Your task to perform on an android device: check out phone information Image 0: 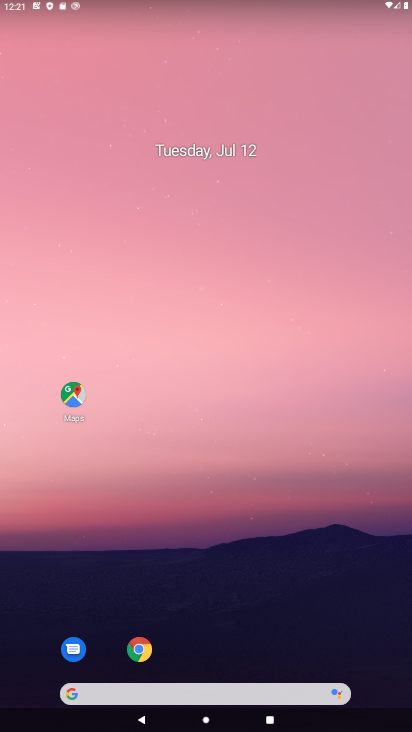
Step 0: drag from (366, 688) to (205, 68)
Your task to perform on an android device: check out phone information Image 1: 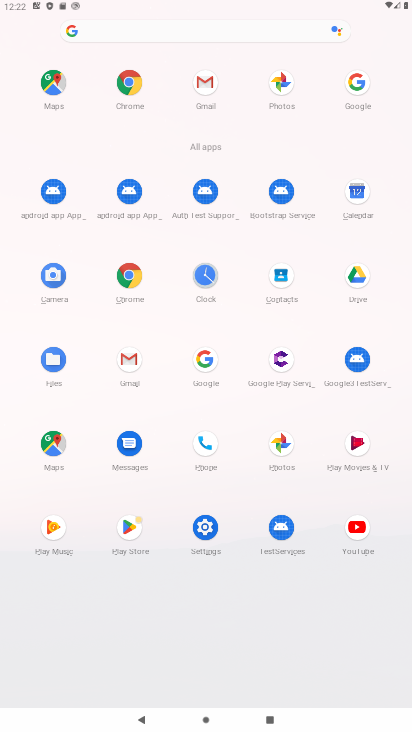
Step 1: click (204, 524)
Your task to perform on an android device: check out phone information Image 2: 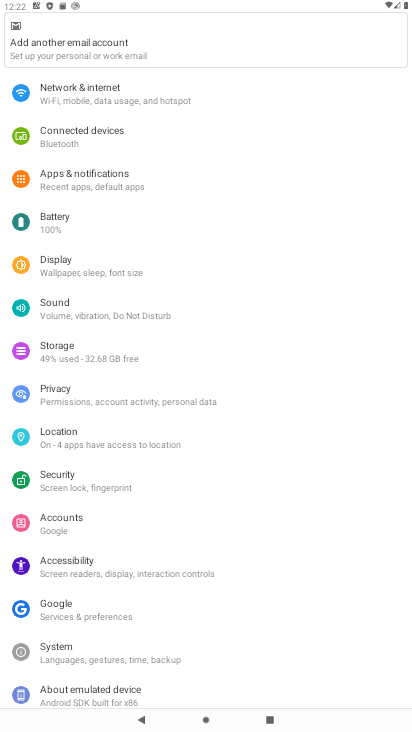
Step 2: task complete